Your task to perform on an android device: toggle translation in the chrome app Image 0: 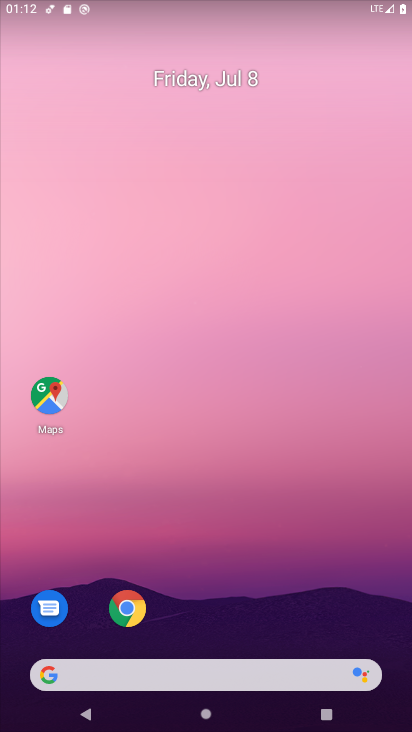
Step 0: drag from (262, 622) to (285, 74)
Your task to perform on an android device: toggle translation in the chrome app Image 1: 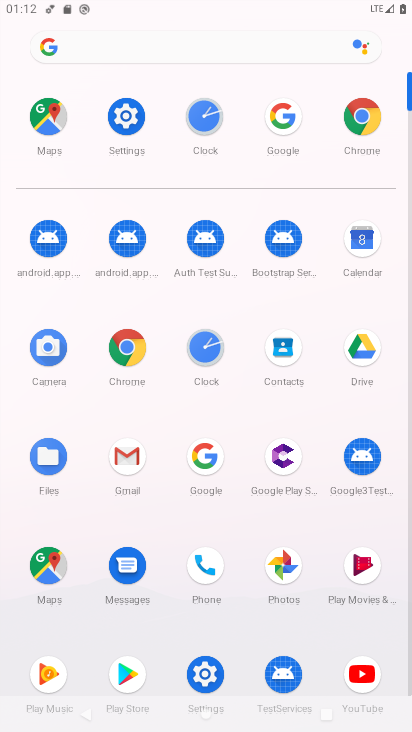
Step 1: click (123, 334)
Your task to perform on an android device: toggle translation in the chrome app Image 2: 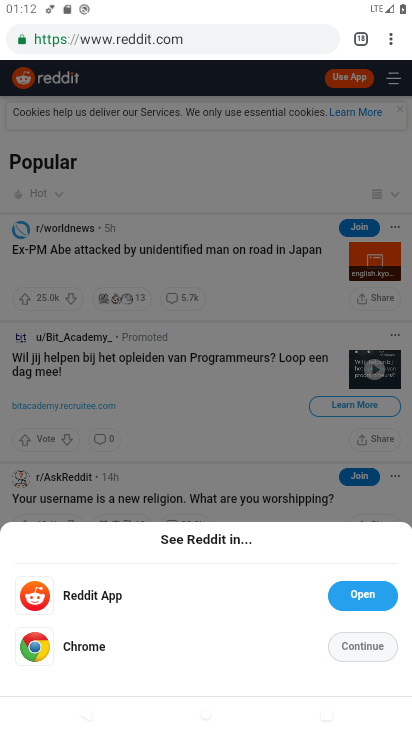
Step 2: click (391, 25)
Your task to perform on an android device: toggle translation in the chrome app Image 3: 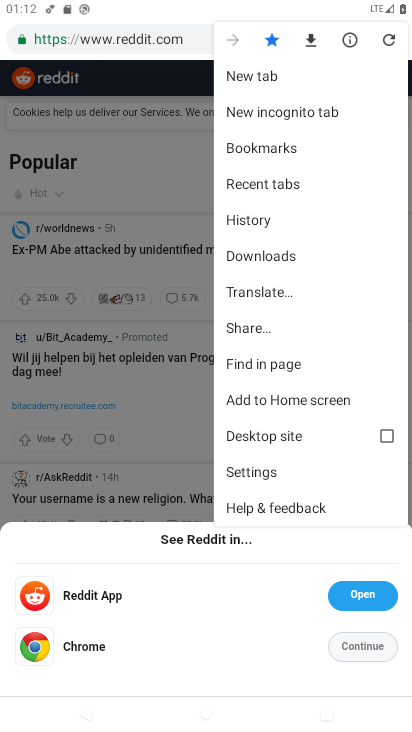
Step 3: click (263, 474)
Your task to perform on an android device: toggle translation in the chrome app Image 4: 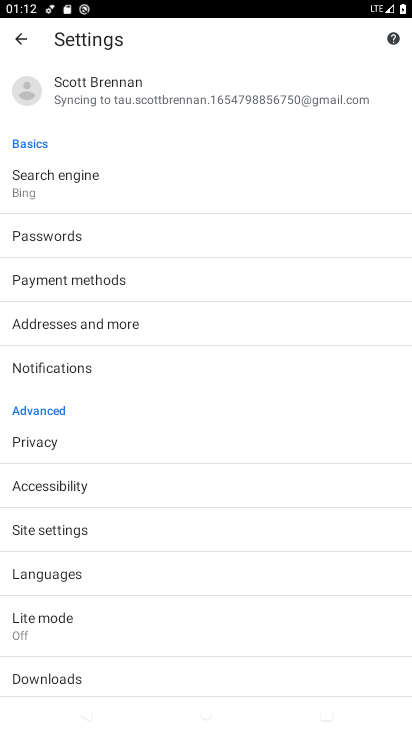
Step 4: click (79, 569)
Your task to perform on an android device: toggle translation in the chrome app Image 5: 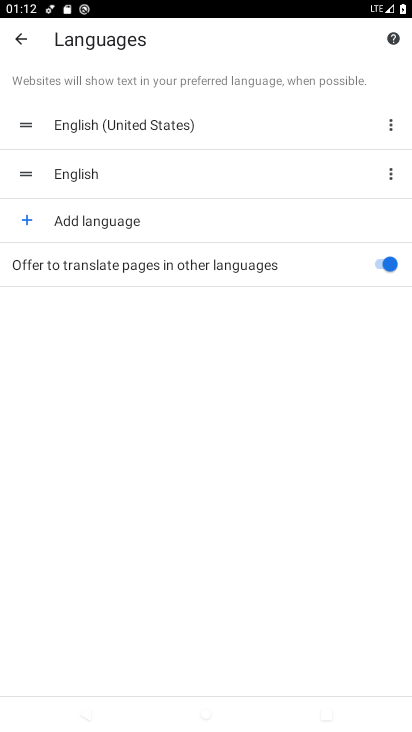
Step 5: click (374, 267)
Your task to perform on an android device: toggle translation in the chrome app Image 6: 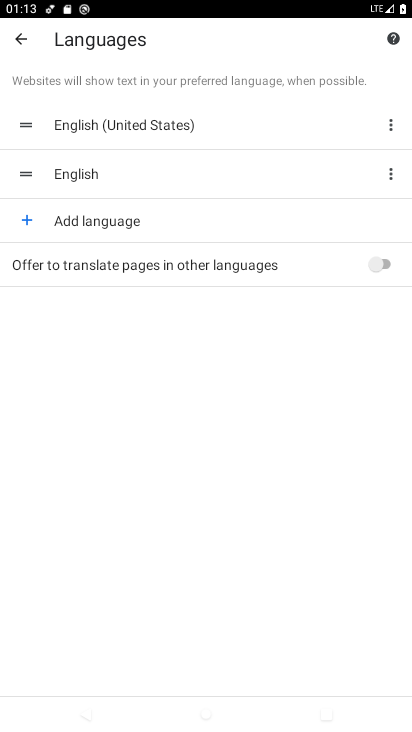
Step 6: task complete